Your task to perform on an android device: Go to wifi settings Image 0: 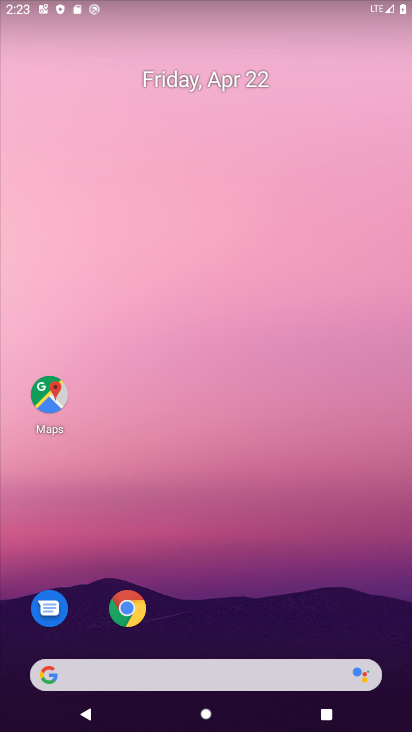
Step 0: drag from (220, 697) to (256, 219)
Your task to perform on an android device: Go to wifi settings Image 1: 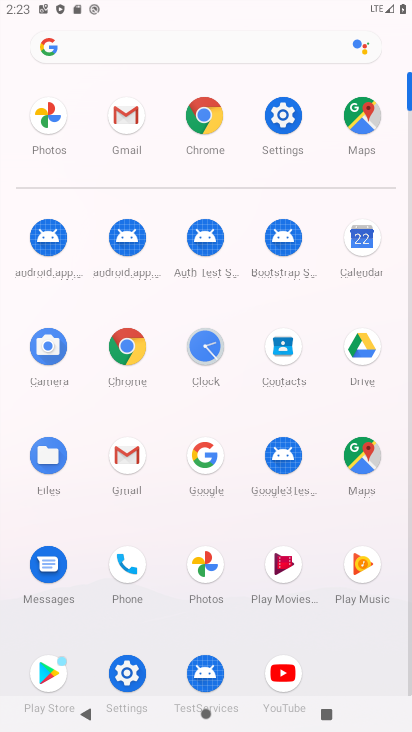
Step 1: click (288, 114)
Your task to perform on an android device: Go to wifi settings Image 2: 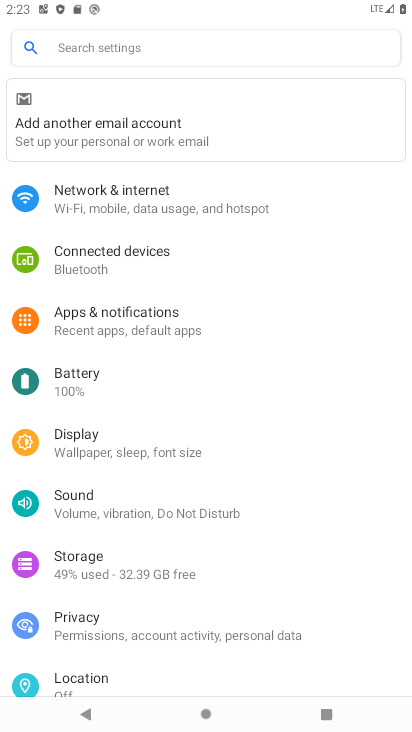
Step 2: click (136, 201)
Your task to perform on an android device: Go to wifi settings Image 3: 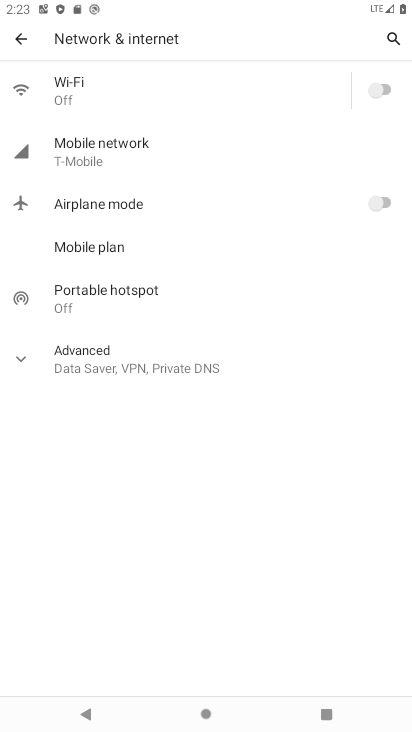
Step 3: click (107, 87)
Your task to perform on an android device: Go to wifi settings Image 4: 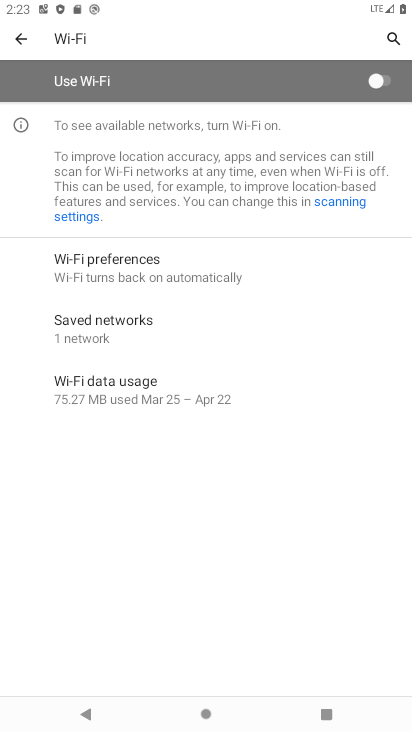
Step 4: task complete